Your task to perform on an android device: toggle wifi Image 0: 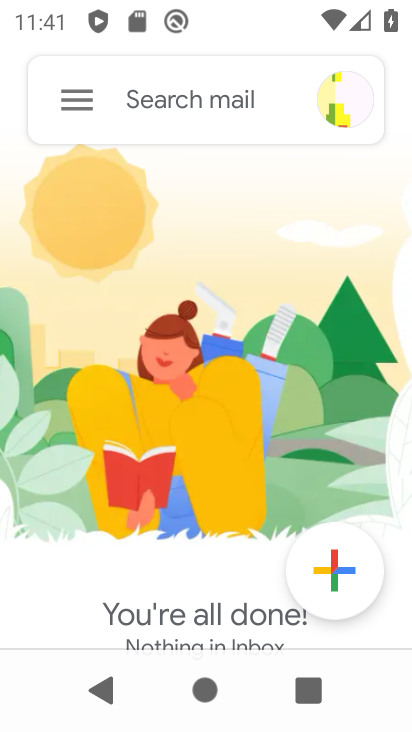
Step 0: press home button
Your task to perform on an android device: toggle wifi Image 1: 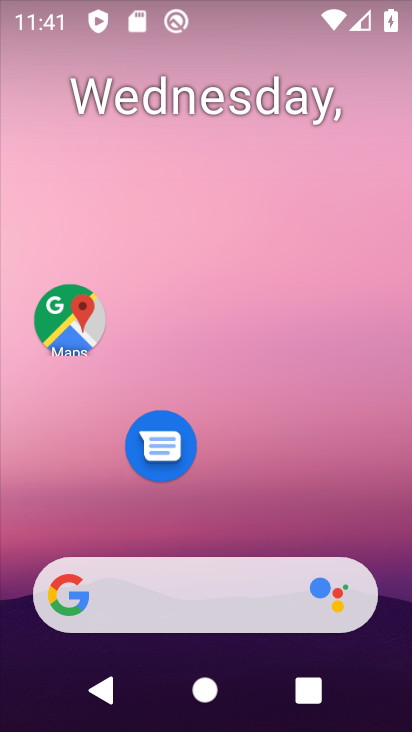
Step 1: drag from (288, 517) to (54, 71)
Your task to perform on an android device: toggle wifi Image 2: 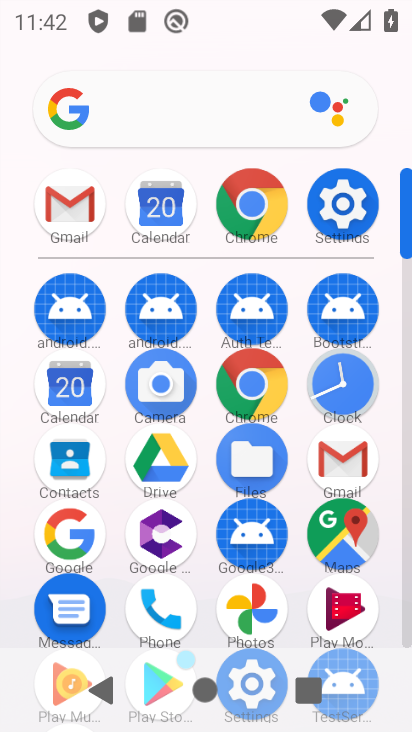
Step 2: click (348, 214)
Your task to perform on an android device: toggle wifi Image 3: 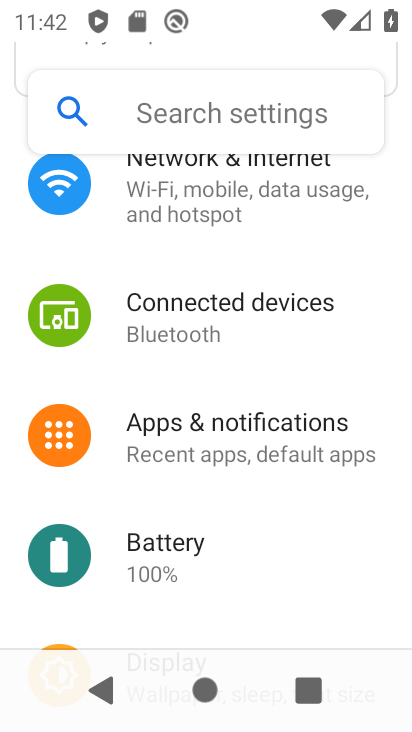
Step 3: click (188, 211)
Your task to perform on an android device: toggle wifi Image 4: 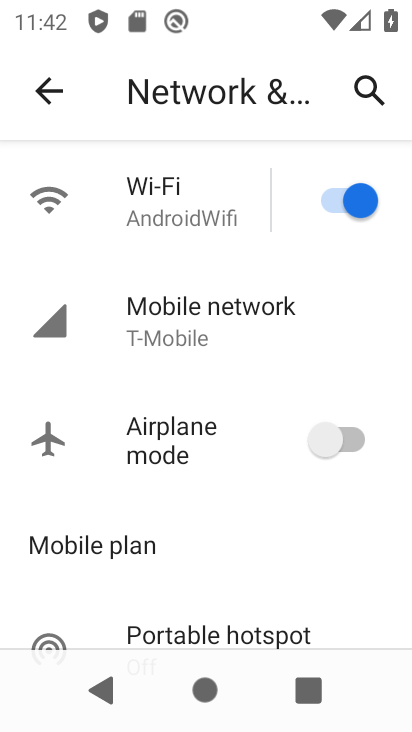
Step 4: click (376, 198)
Your task to perform on an android device: toggle wifi Image 5: 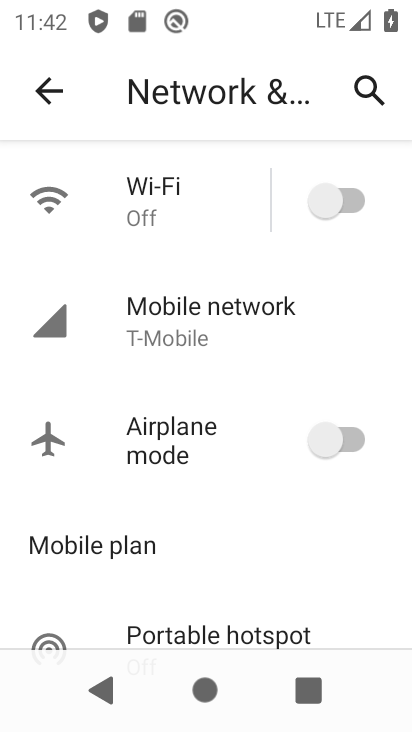
Step 5: task complete